Your task to perform on an android device: Open Youtube and go to the subscriptions tab Image 0: 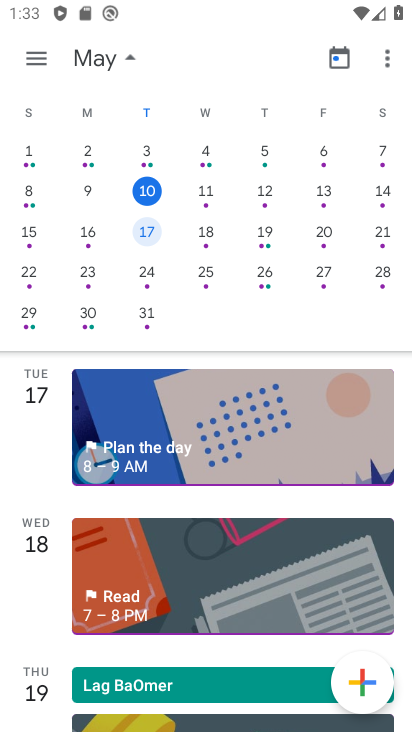
Step 0: task complete